Your task to perform on an android device: Open calendar and show me the second week of next month Image 0: 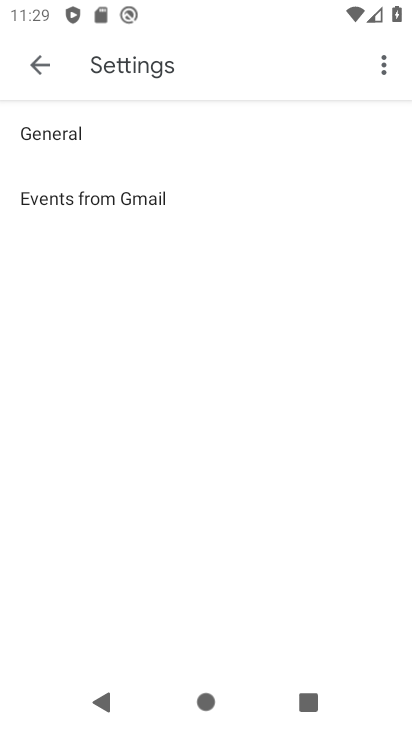
Step 0: press home button
Your task to perform on an android device: Open calendar and show me the second week of next month Image 1: 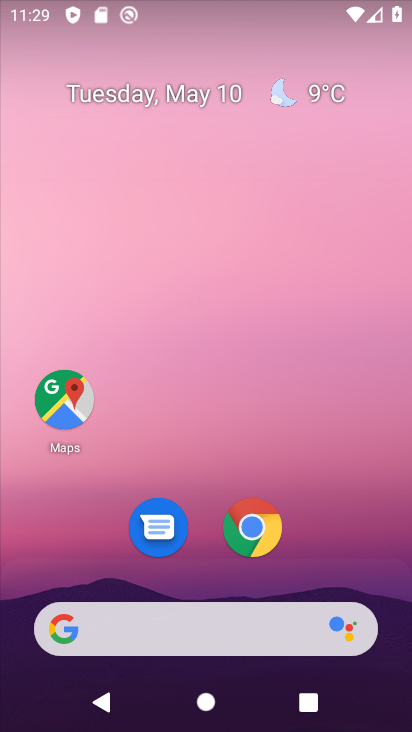
Step 1: drag from (223, 725) to (223, 203)
Your task to perform on an android device: Open calendar and show me the second week of next month Image 2: 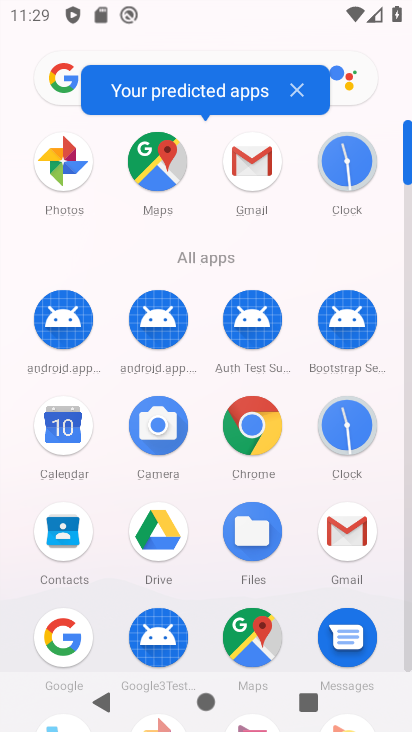
Step 2: click (63, 425)
Your task to perform on an android device: Open calendar and show me the second week of next month Image 3: 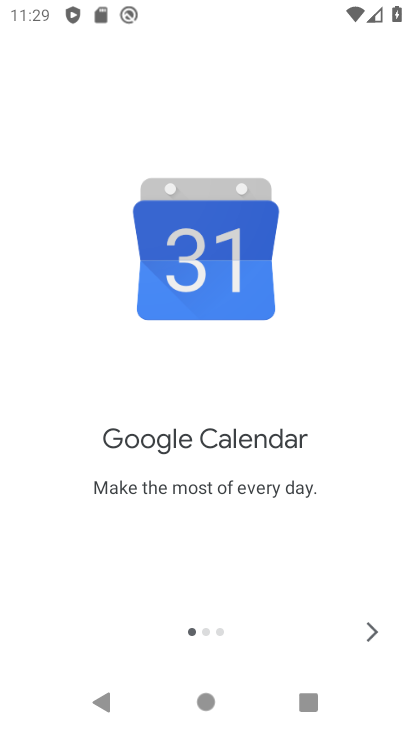
Step 3: click (372, 628)
Your task to perform on an android device: Open calendar and show me the second week of next month Image 4: 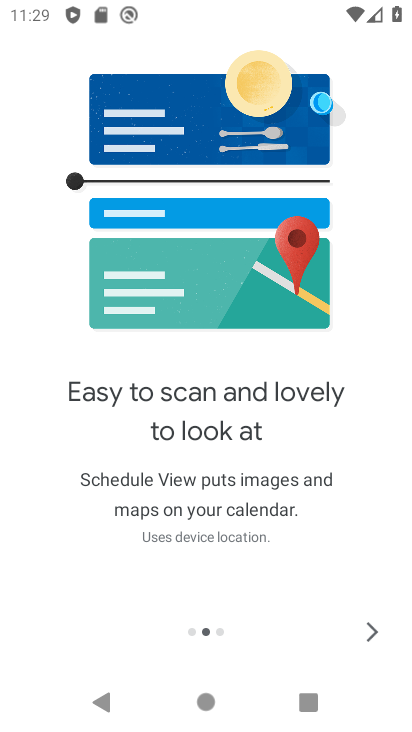
Step 4: click (372, 628)
Your task to perform on an android device: Open calendar and show me the second week of next month Image 5: 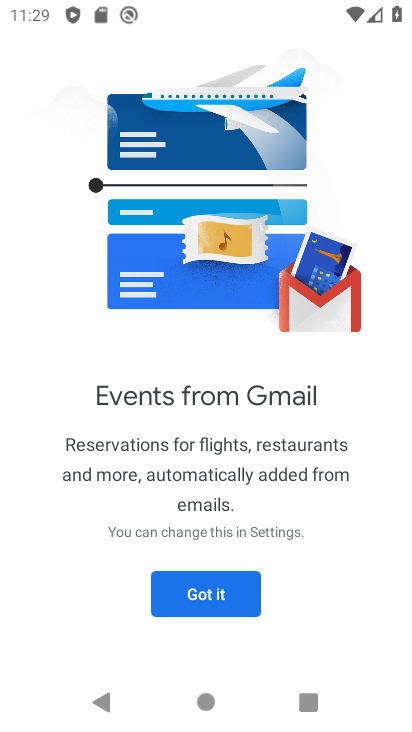
Step 5: click (230, 597)
Your task to perform on an android device: Open calendar and show me the second week of next month Image 6: 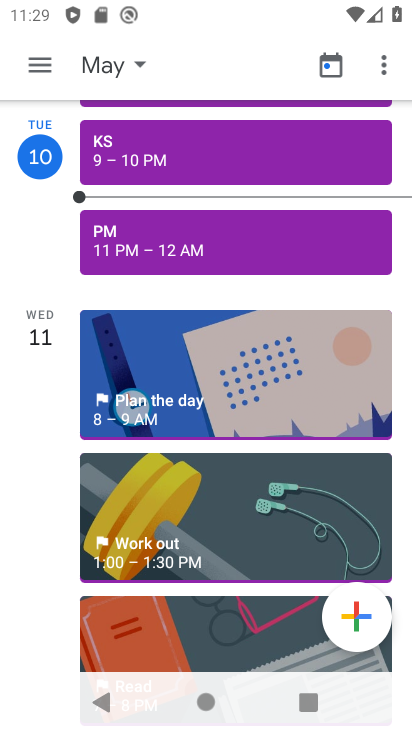
Step 6: click (38, 63)
Your task to perform on an android device: Open calendar and show me the second week of next month Image 7: 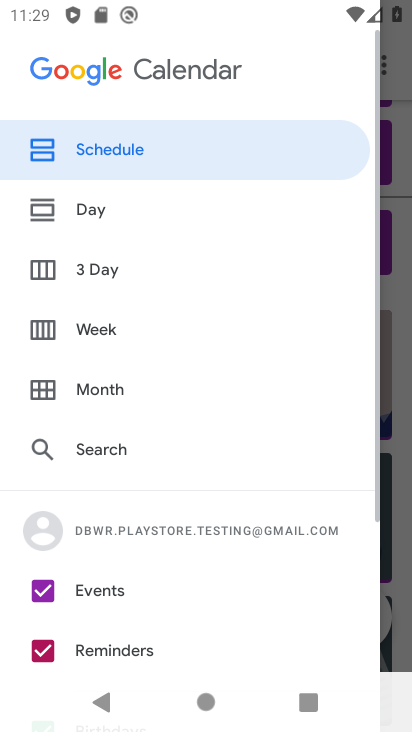
Step 7: click (96, 327)
Your task to perform on an android device: Open calendar and show me the second week of next month Image 8: 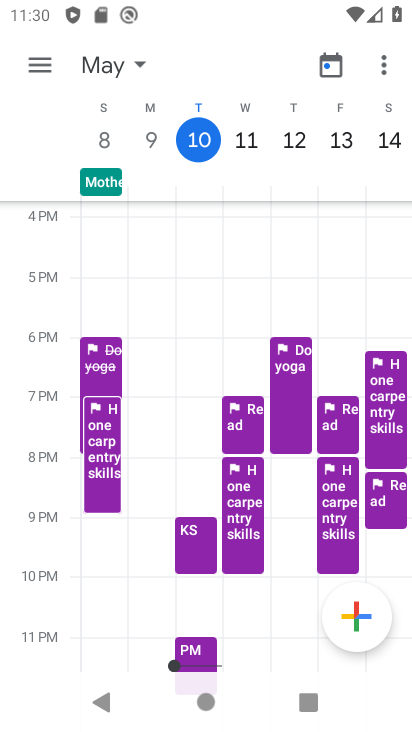
Step 8: task complete